Your task to perform on an android device: snooze an email in the gmail app Image 0: 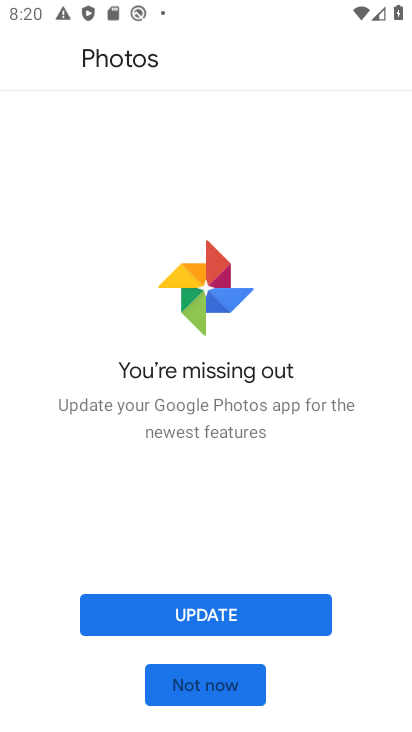
Step 0: press home button
Your task to perform on an android device: snooze an email in the gmail app Image 1: 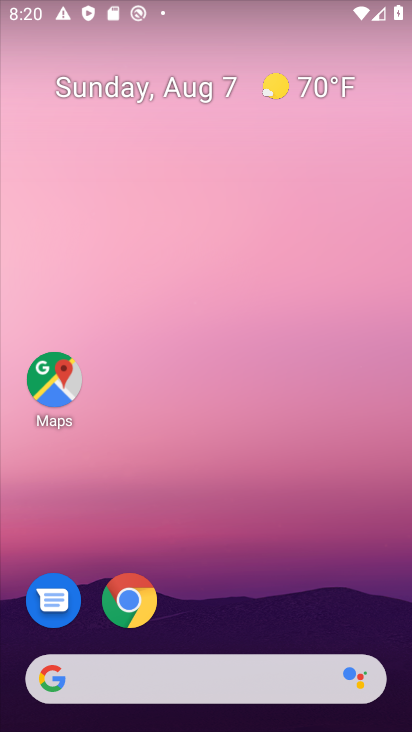
Step 1: drag from (194, 569) to (180, 52)
Your task to perform on an android device: snooze an email in the gmail app Image 2: 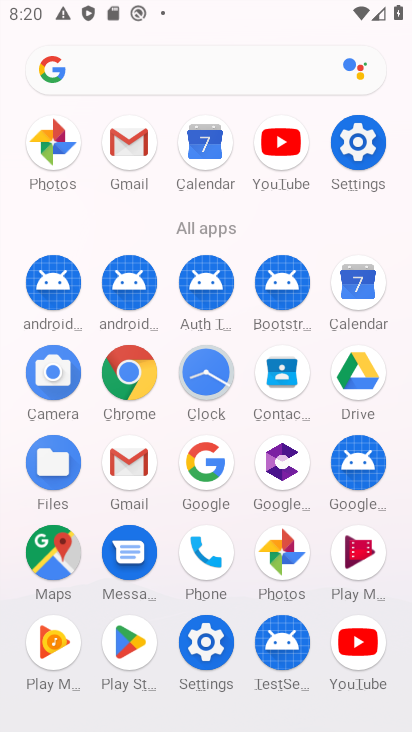
Step 2: click (136, 157)
Your task to perform on an android device: snooze an email in the gmail app Image 3: 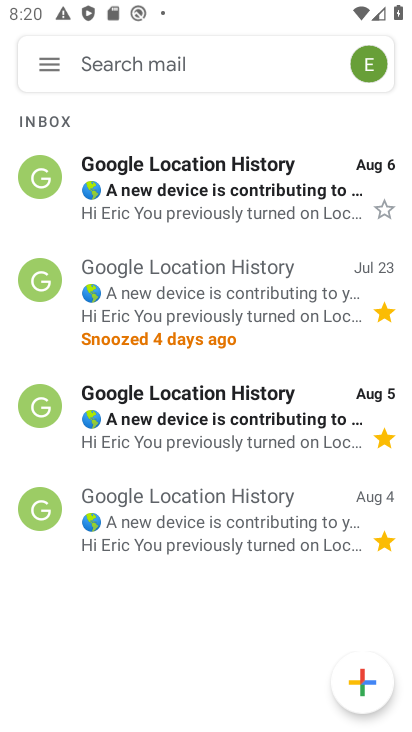
Step 3: click (262, 204)
Your task to perform on an android device: snooze an email in the gmail app Image 4: 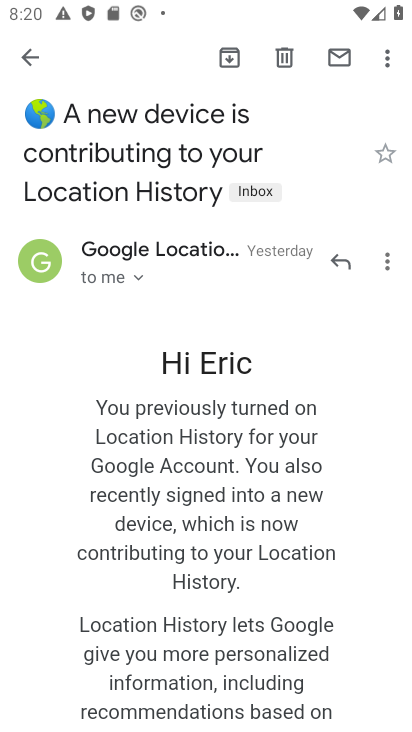
Step 4: click (385, 64)
Your task to perform on an android device: snooze an email in the gmail app Image 5: 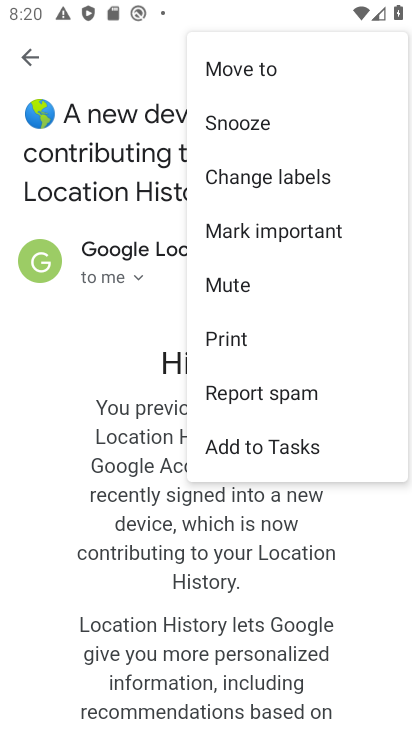
Step 5: click (230, 135)
Your task to perform on an android device: snooze an email in the gmail app Image 6: 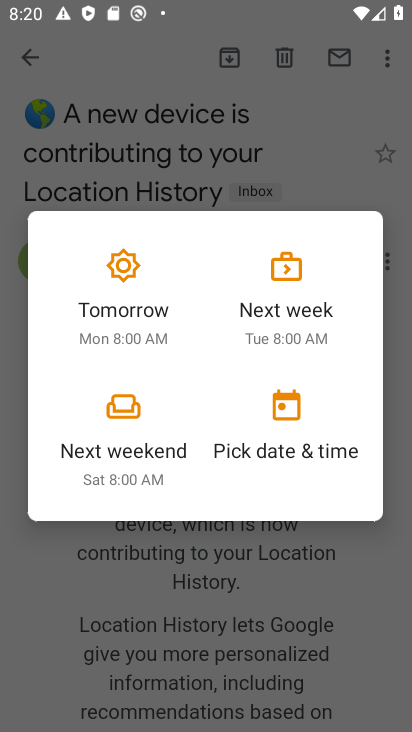
Step 6: click (119, 324)
Your task to perform on an android device: snooze an email in the gmail app Image 7: 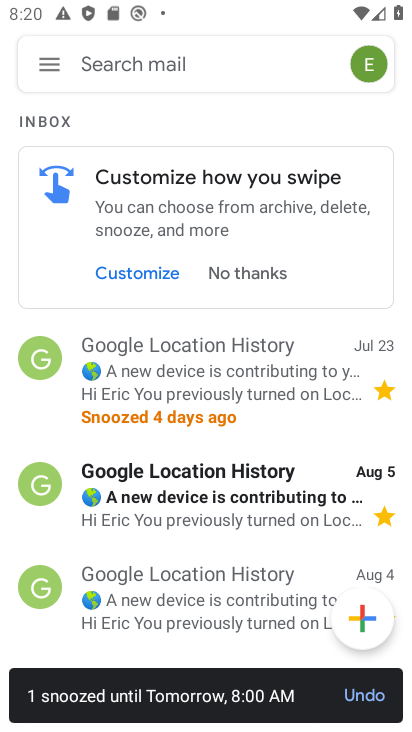
Step 7: task complete